Your task to perform on an android device: turn on the 24-hour format for clock Image 0: 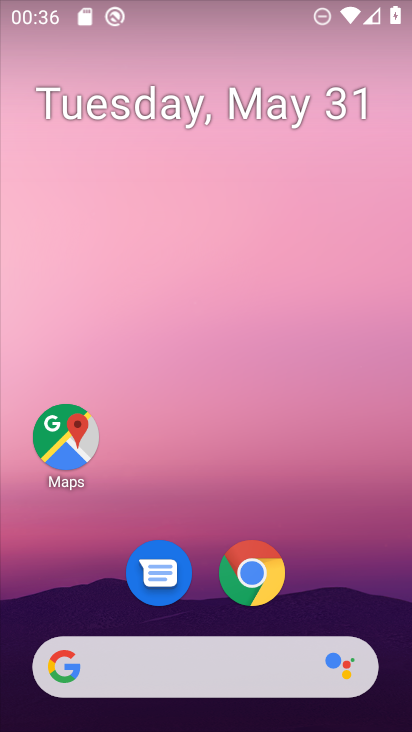
Step 0: drag from (230, 622) to (322, 12)
Your task to perform on an android device: turn on the 24-hour format for clock Image 1: 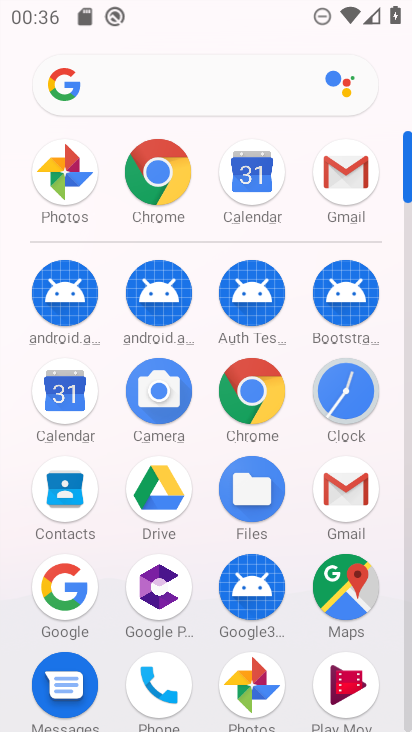
Step 1: click (348, 382)
Your task to perform on an android device: turn on the 24-hour format for clock Image 2: 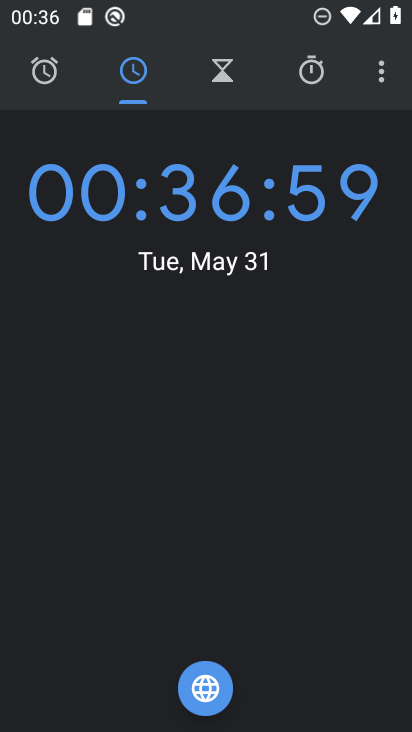
Step 2: click (373, 72)
Your task to perform on an android device: turn on the 24-hour format for clock Image 3: 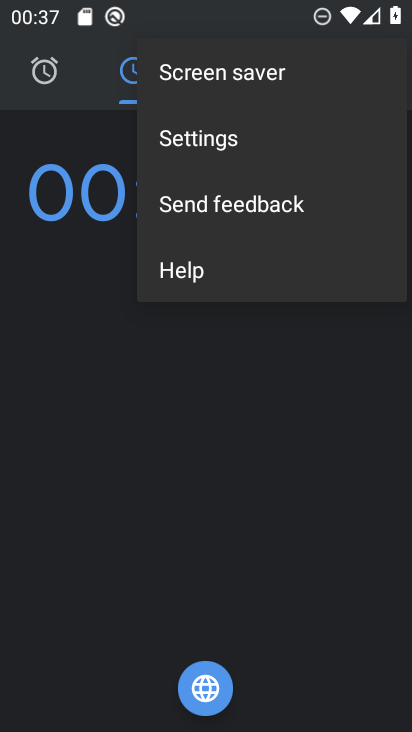
Step 3: click (290, 142)
Your task to perform on an android device: turn on the 24-hour format for clock Image 4: 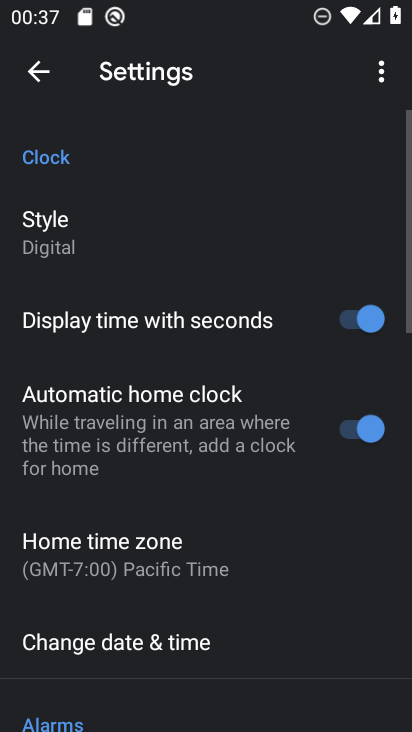
Step 4: click (276, 673)
Your task to perform on an android device: turn on the 24-hour format for clock Image 5: 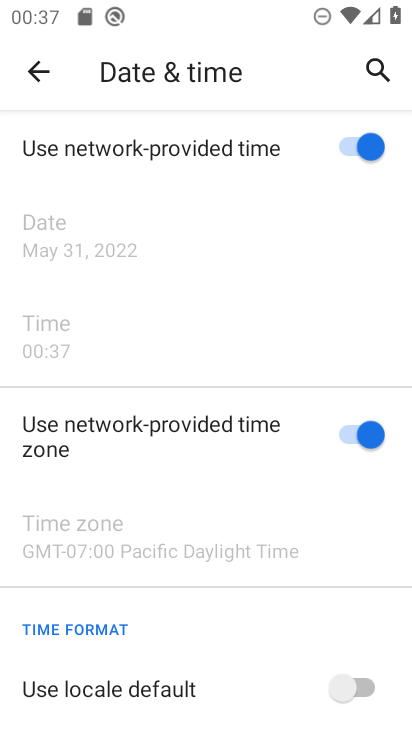
Step 5: click (289, 111)
Your task to perform on an android device: turn on the 24-hour format for clock Image 6: 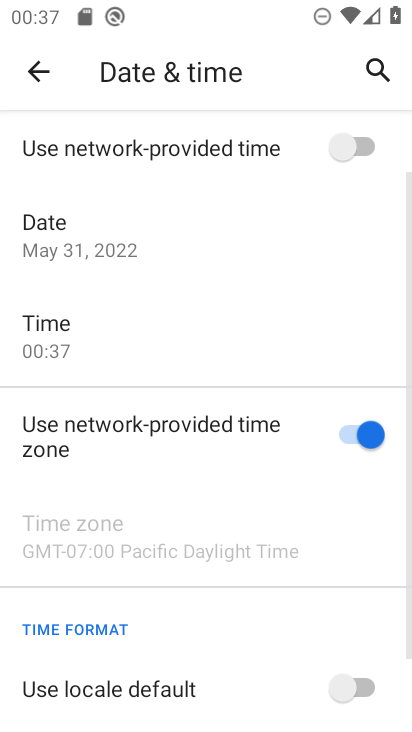
Step 6: task complete